Your task to perform on an android device: Open Google Chrome and open the bookmarks view Image 0: 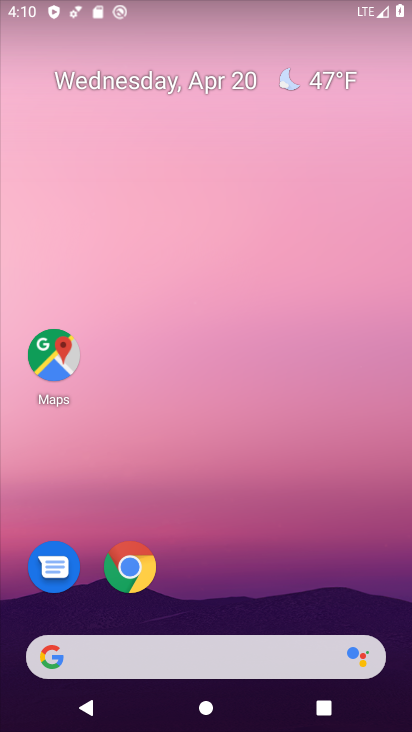
Step 0: drag from (311, 555) to (189, 17)
Your task to perform on an android device: Open Google Chrome and open the bookmarks view Image 1: 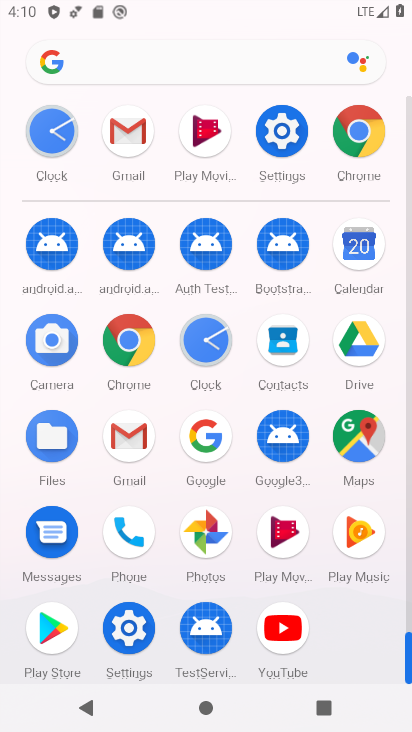
Step 1: drag from (3, 473) to (13, 250)
Your task to perform on an android device: Open Google Chrome and open the bookmarks view Image 2: 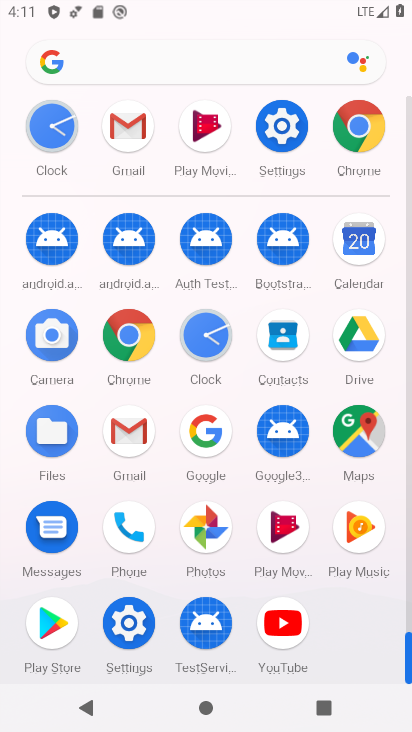
Step 2: click (125, 335)
Your task to perform on an android device: Open Google Chrome and open the bookmarks view Image 3: 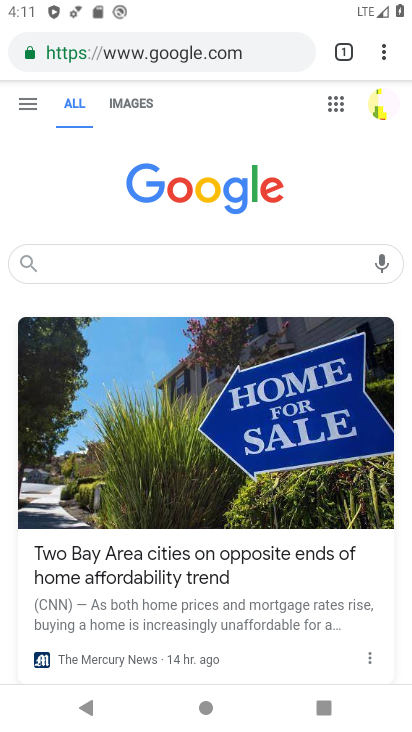
Step 3: task complete